Your task to perform on an android device: Show the shopping cart on walmart. Add razer blade to the cart on walmart Image 0: 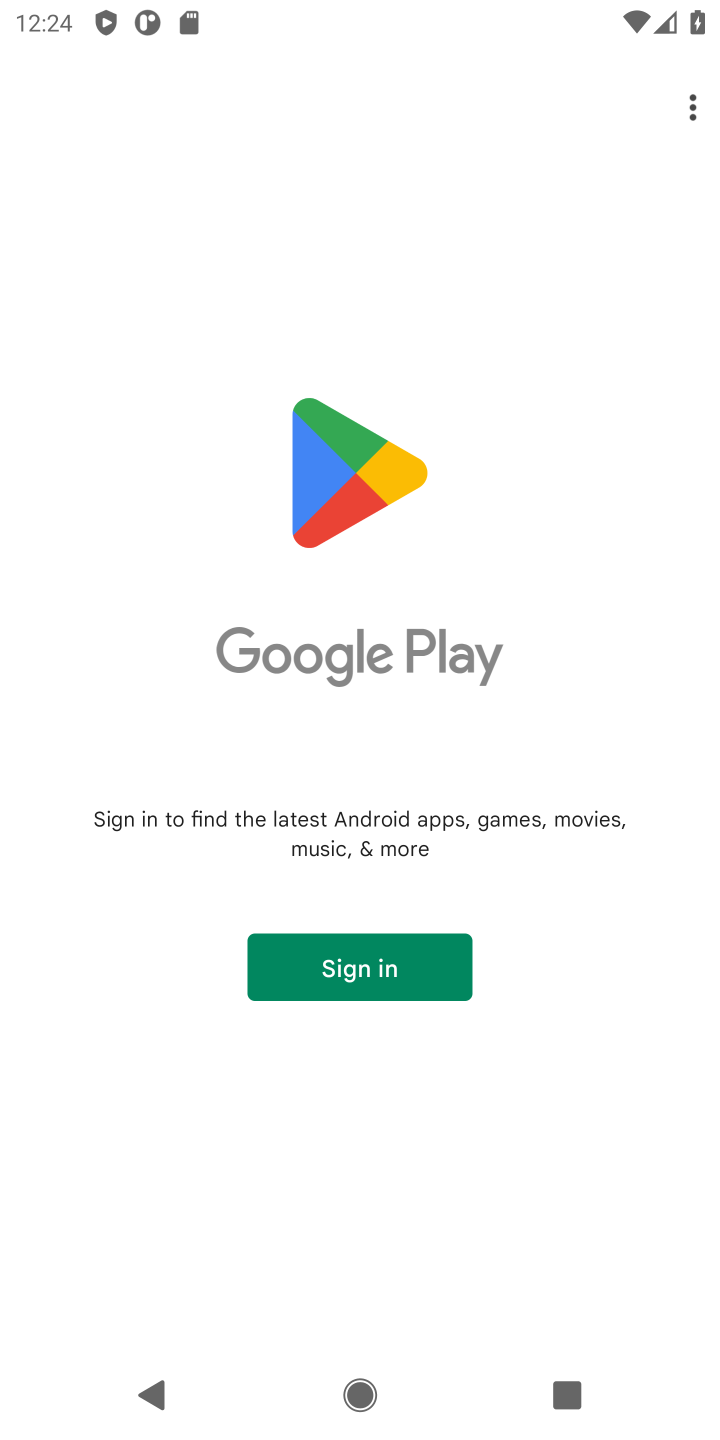
Step 0: press home button
Your task to perform on an android device: Show the shopping cart on walmart. Add razer blade to the cart on walmart Image 1: 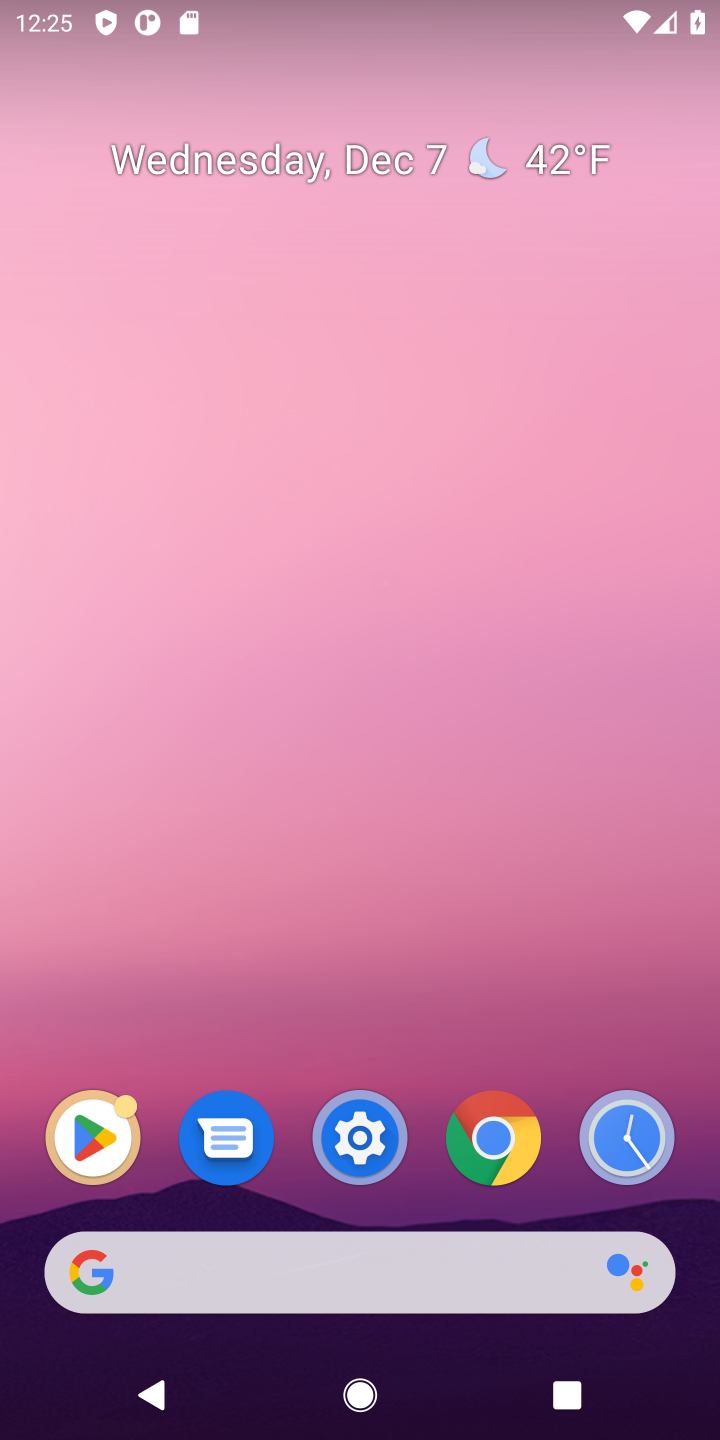
Step 1: click (379, 1254)
Your task to perform on an android device: Show the shopping cart on walmart. Add razer blade to the cart on walmart Image 2: 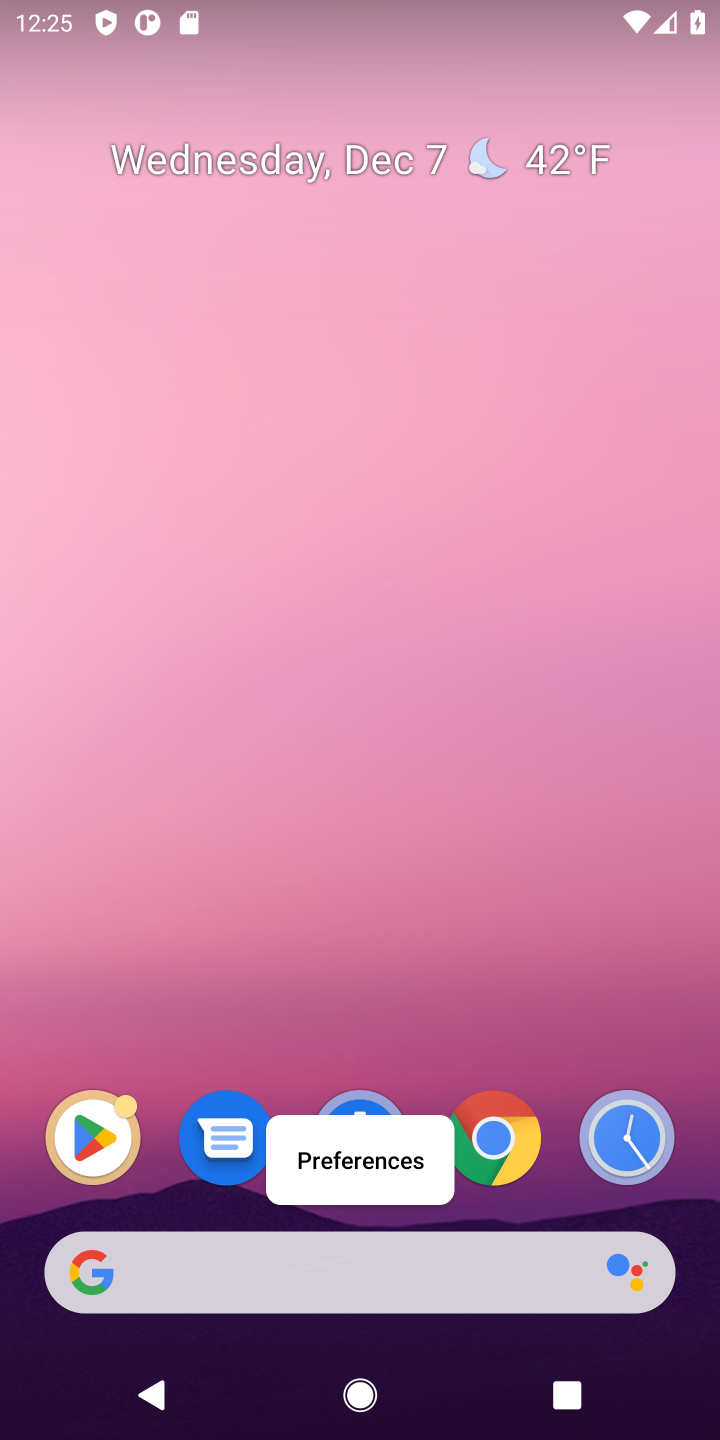
Step 2: click (459, 1244)
Your task to perform on an android device: Show the shopping cart on walmart. Add razer blade to the cart on walmart Image 3: 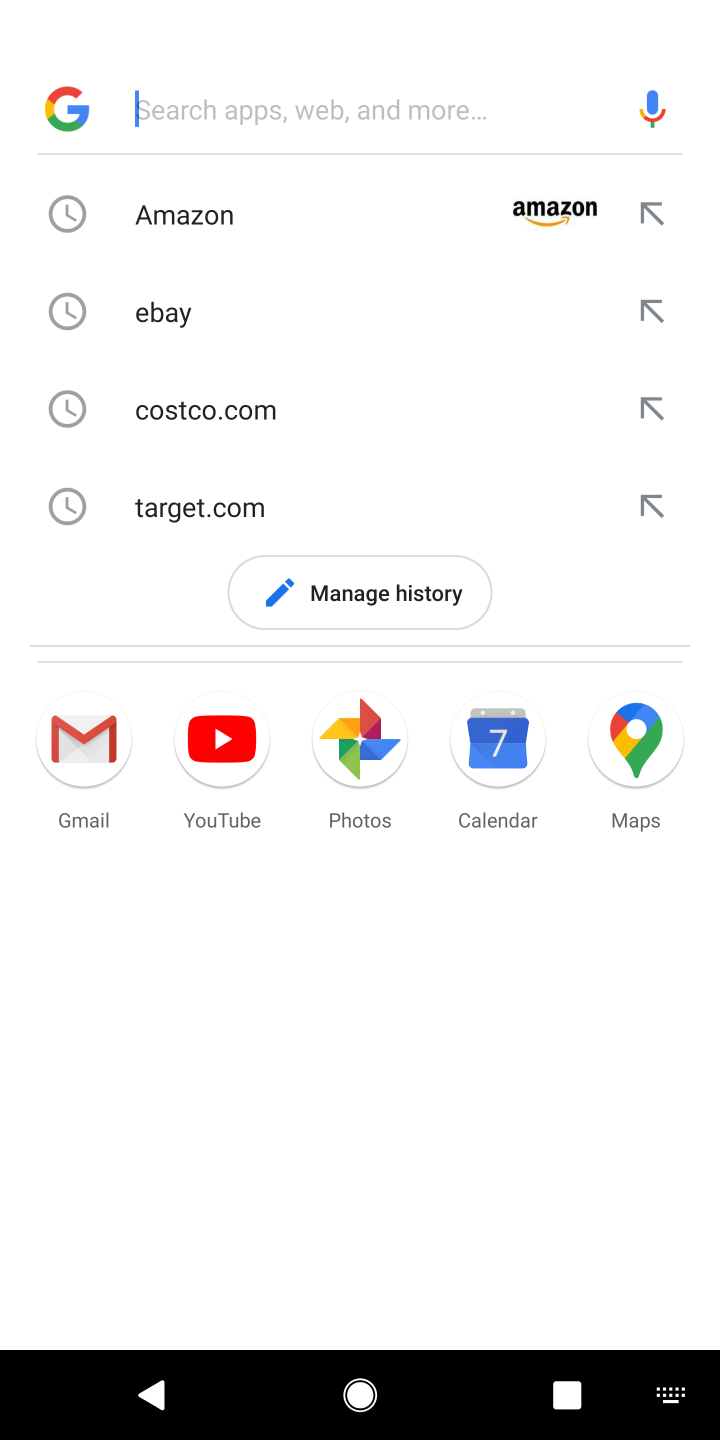
Step 3: type "walmart"
Your task to perform on an android device: Show the shopping cart on walmart. Add razer blade to the cart on walmart Image 4: 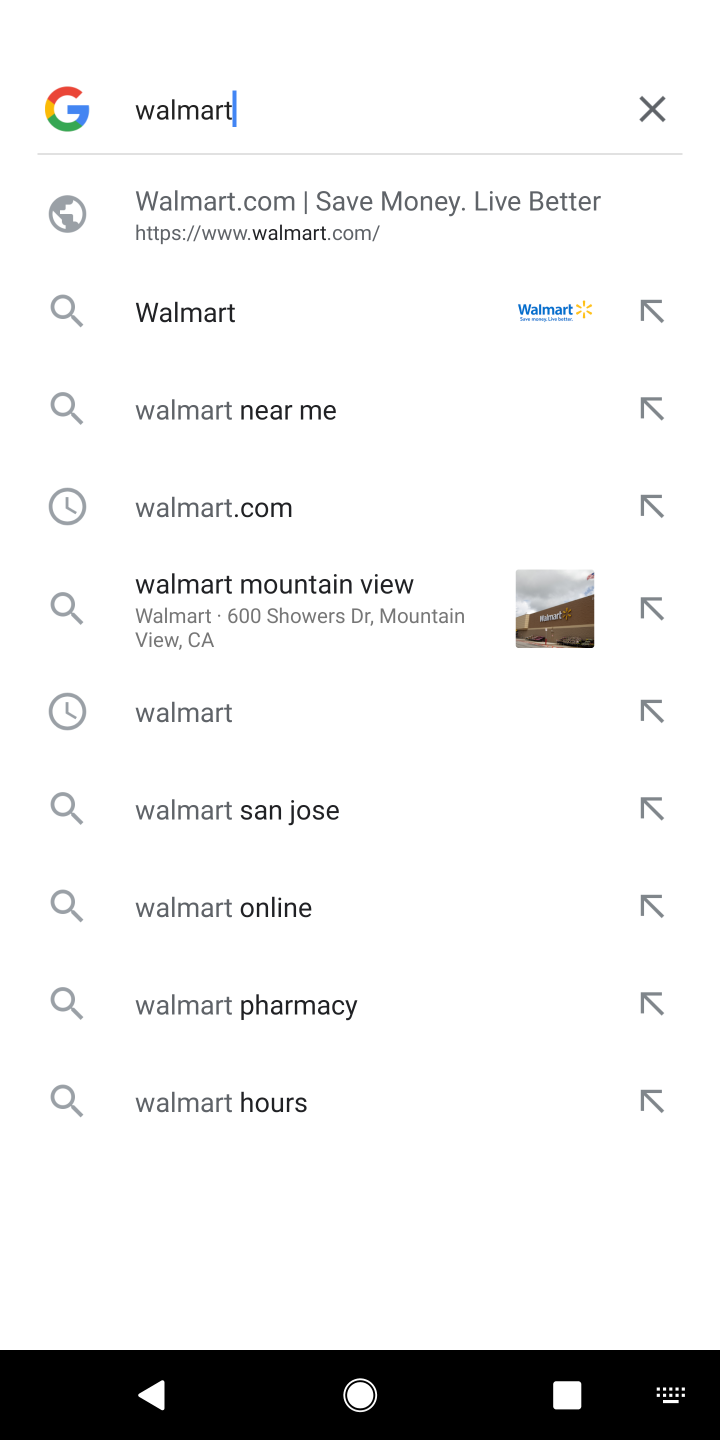
Step 4: click (316, 334)
Your task to perform on an android device: Show the shopping cart on walmart. Add razer blade to the cart on walmart Image 5: 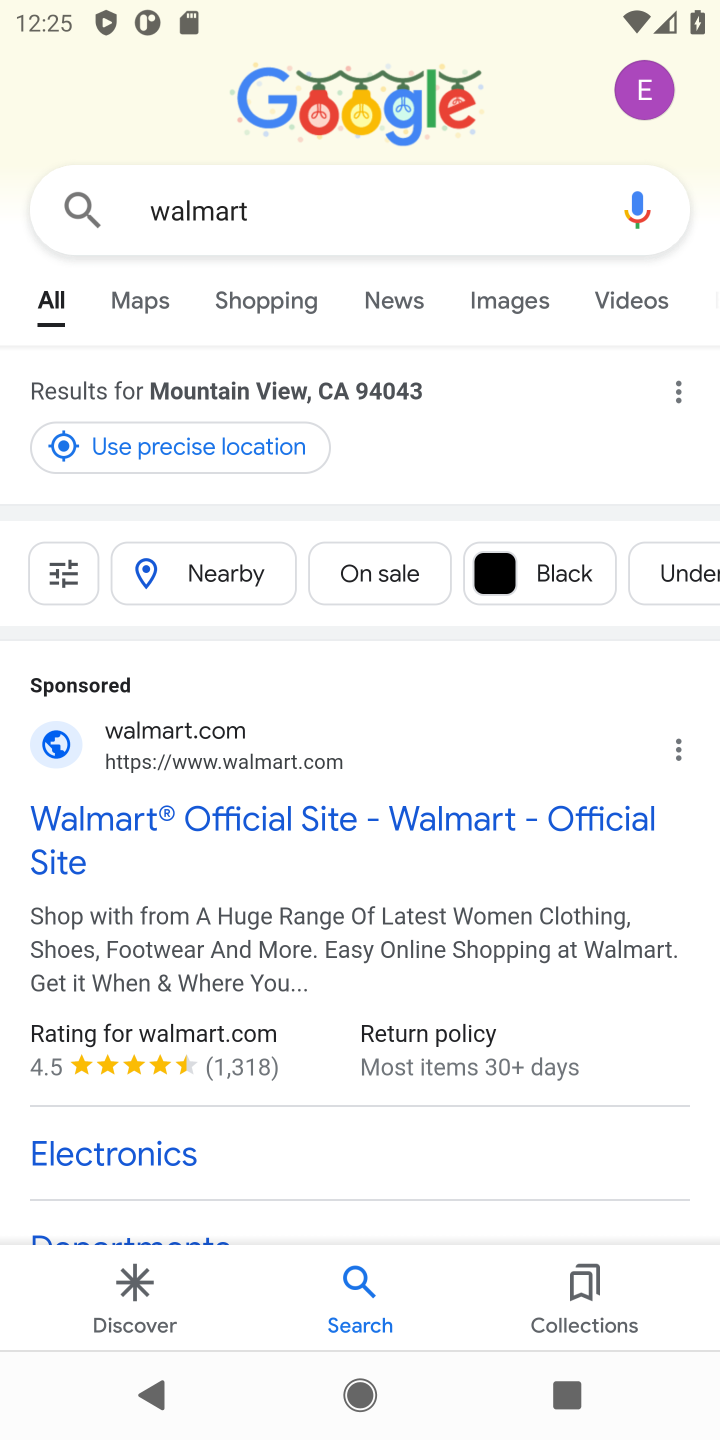
Step 5: click (55, 808)
Your task to perform on an android device: Show the shopping cart on walmart. Add razer blade to the cart on walmart Image 6: 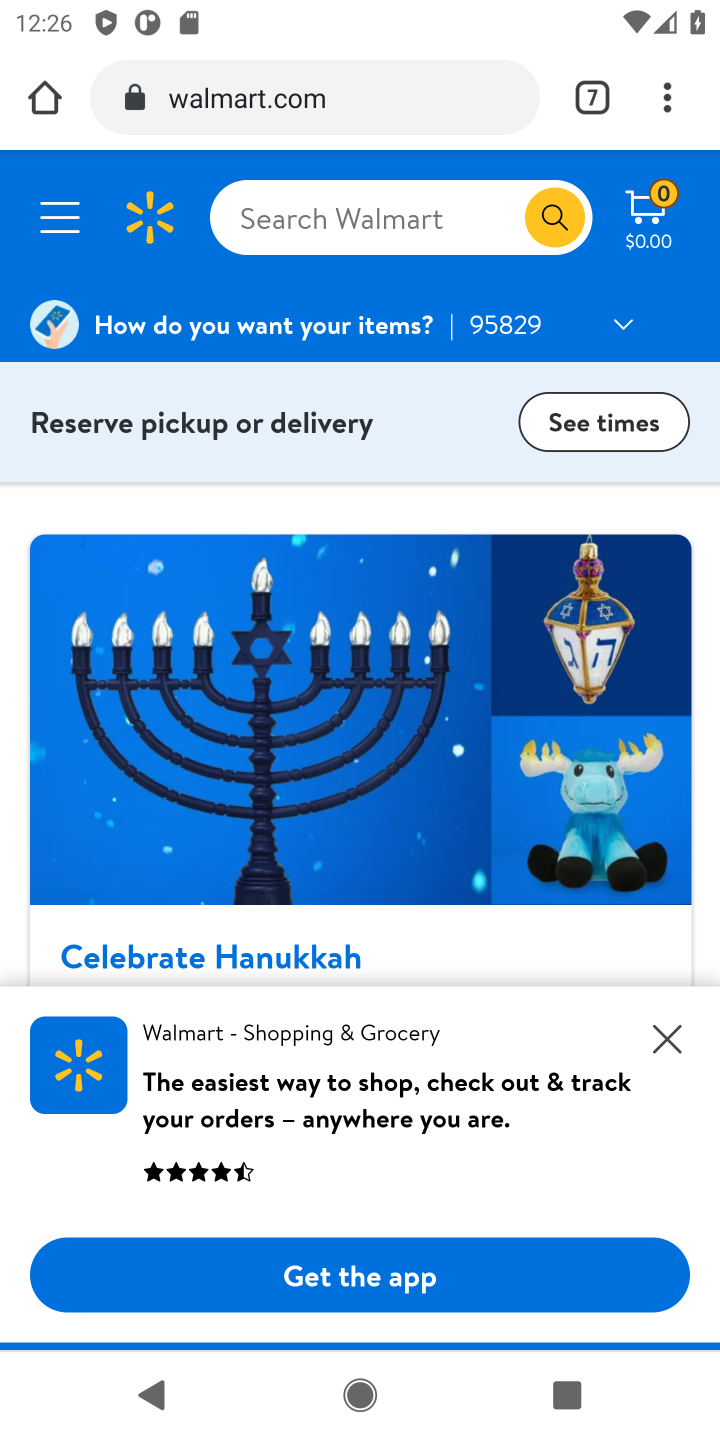
Step 6: click (385, 248)
Your task to perform on an android device: Show the shopping cart on walmart. Add razer blade to the cart on walmart Image 7: 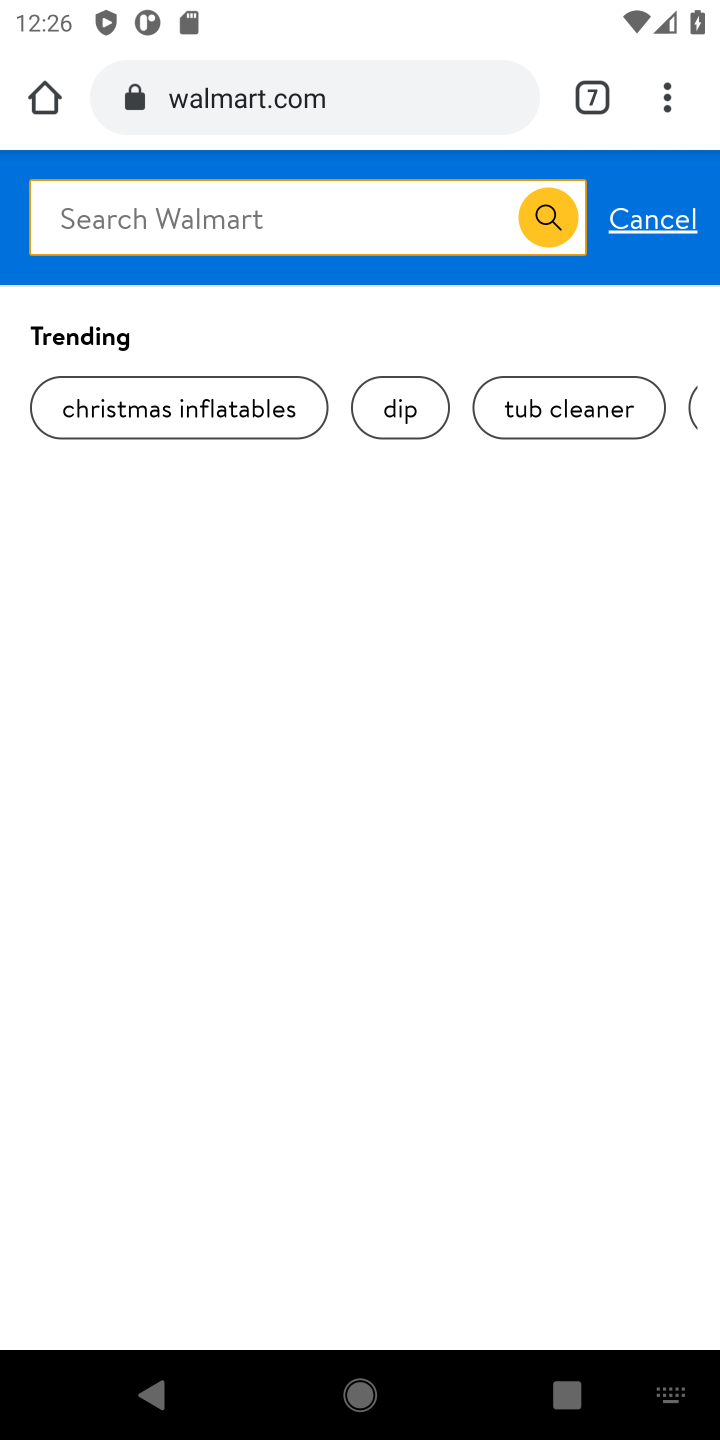
Step 7: type "razer blade"
Your task to perform on an android device: Show the shopping cart on walmart. Add razer blade to the cart on walmart Image 8: 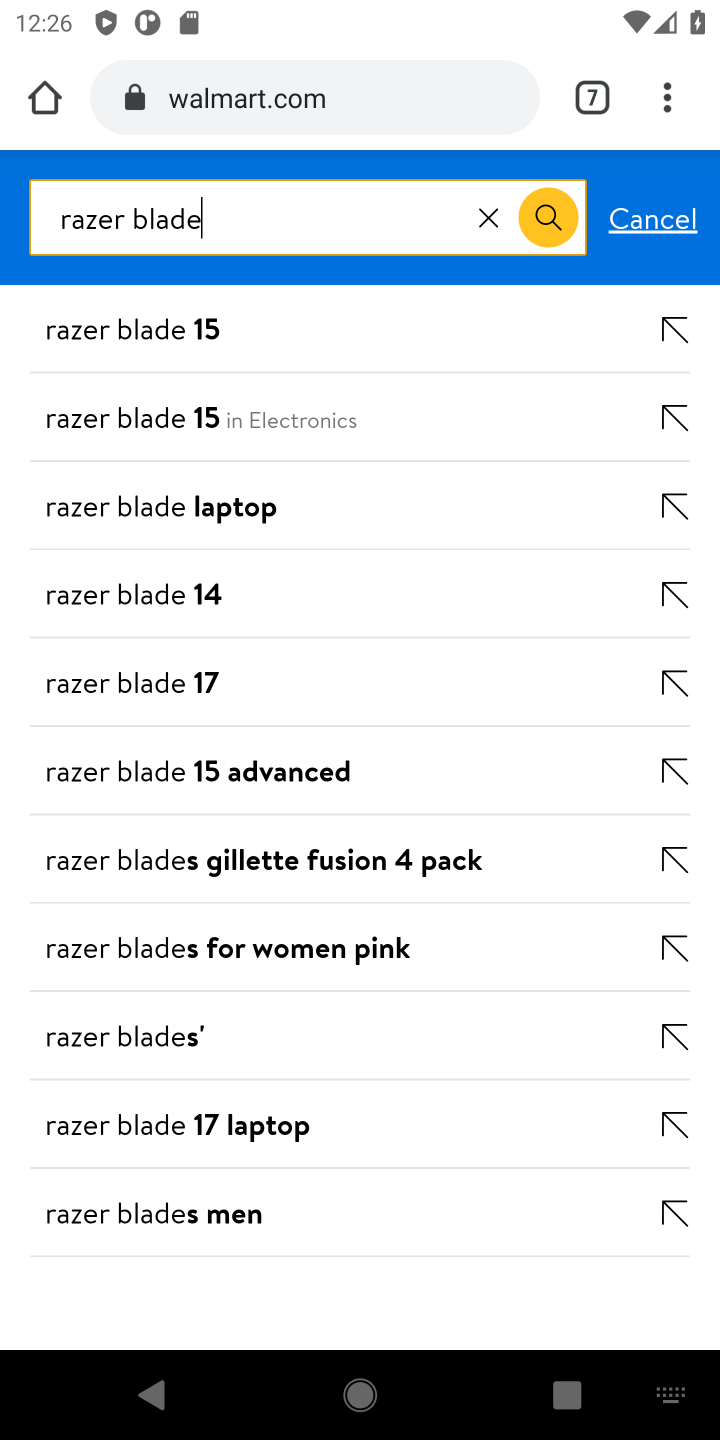
Step 8: click (542, 224)
Your task to perform on an android device: Show the shopping cart on walmart. Add razer blade to the cart on walmart Image 9: 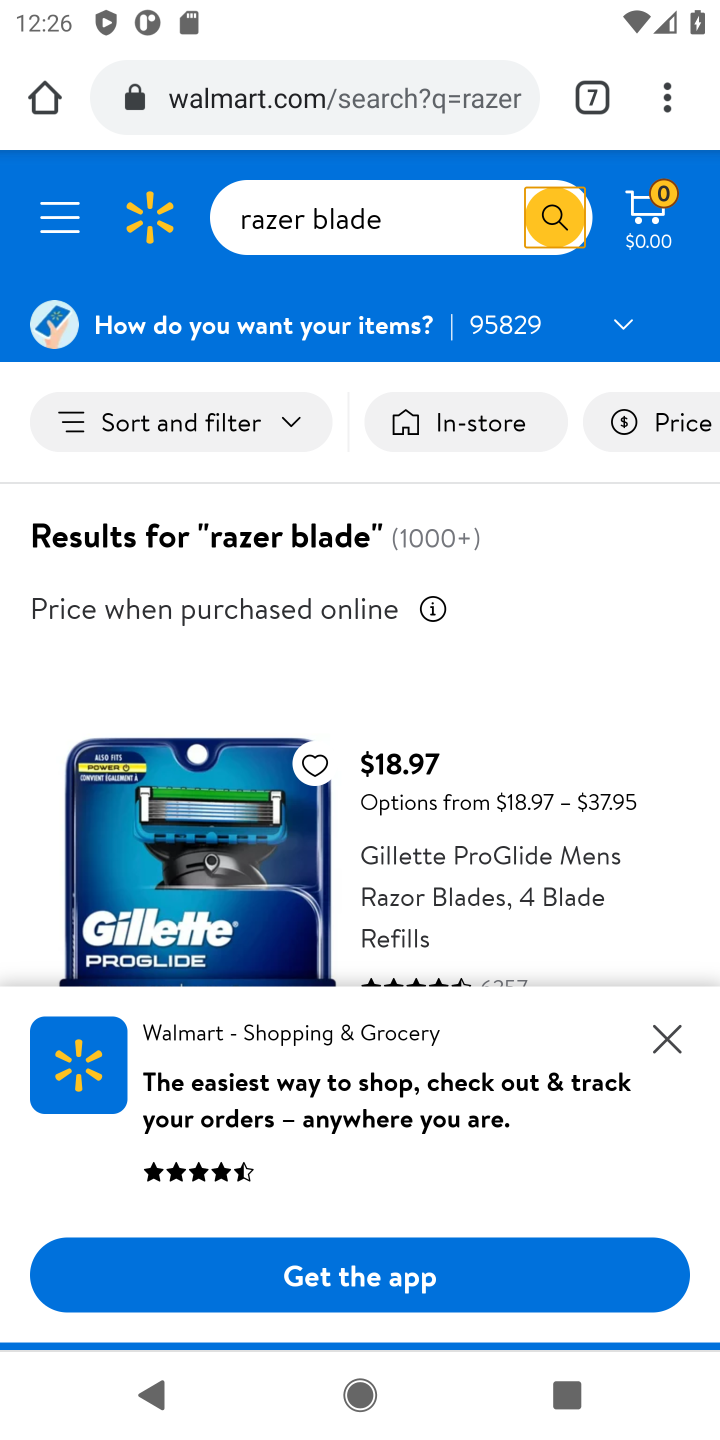
Step 9: task complete